Your task to perform on an android device: Go to accessibility settings Image 0: 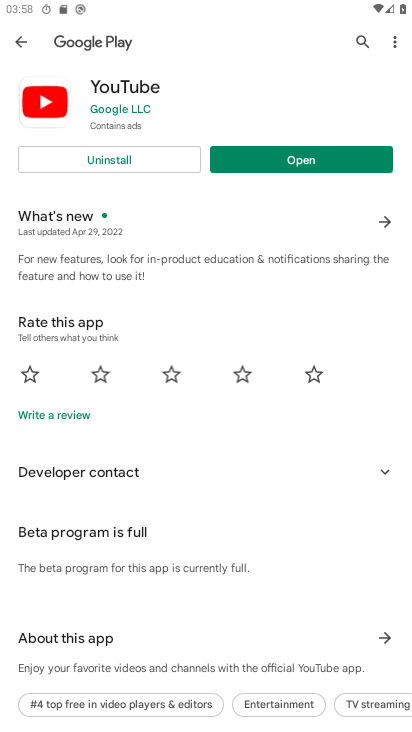
Step 0: press home button
Your task to perform on an android device: Go to accessibility settings Image 1: 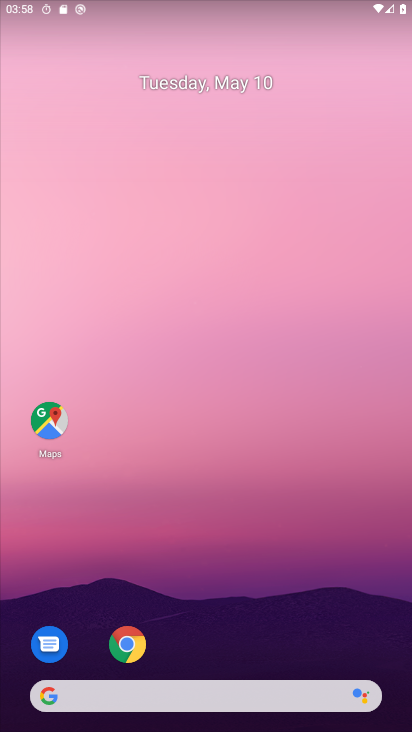
Step 1: drag from (211, 642) to (250, 128)
Your task to perform on an android device: Go to accessibility settings Image 2: 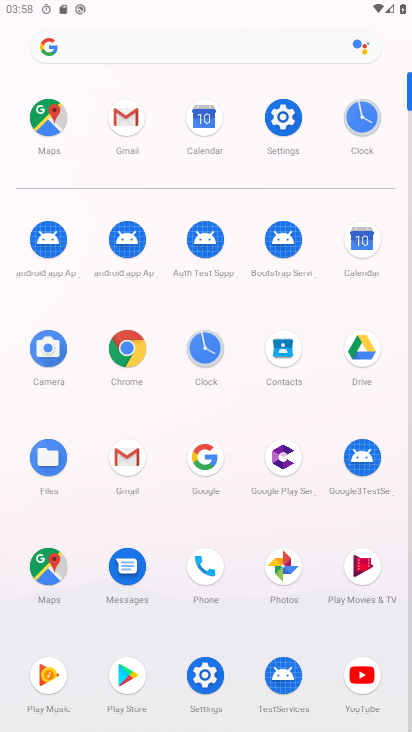
Step 2: click (202, 671)
Your task to perform on an android device: Go to accessibility settings Image 3: 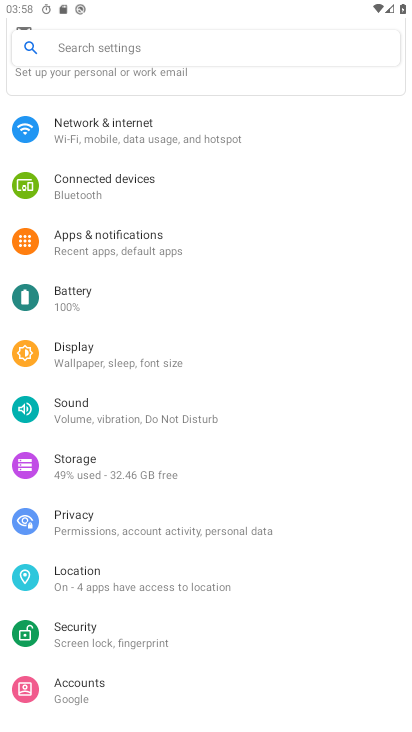
Step 3: drag from (136, 648) to (190, 183)
Your task to perform on an android device: Go to accessibility settings Image 4: 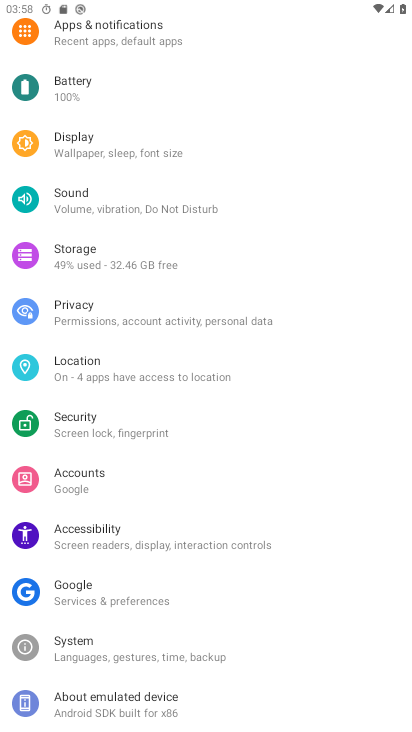
Step 4: click (124, 532)
Your task to perform on an android device: Go to accessibility settings Image 5: 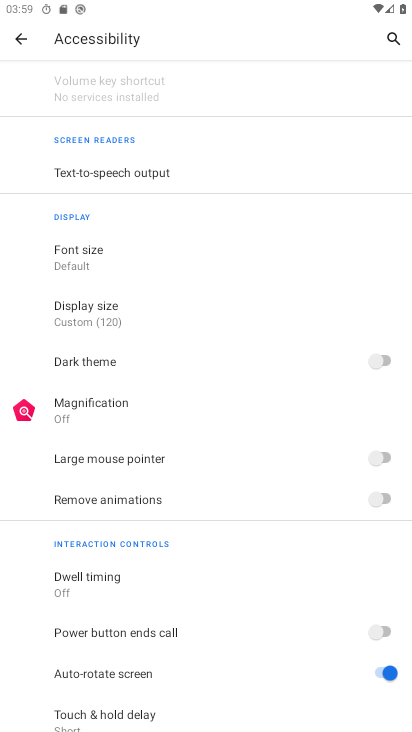
Step 5: task complete